Your task to perform on an android device: check data usage Image 0: 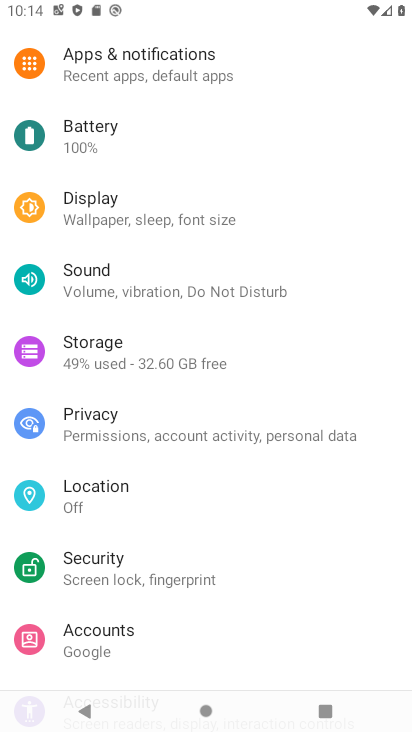
Step 0: press home button
Your task to perform on an android device: check data usage Image 1: 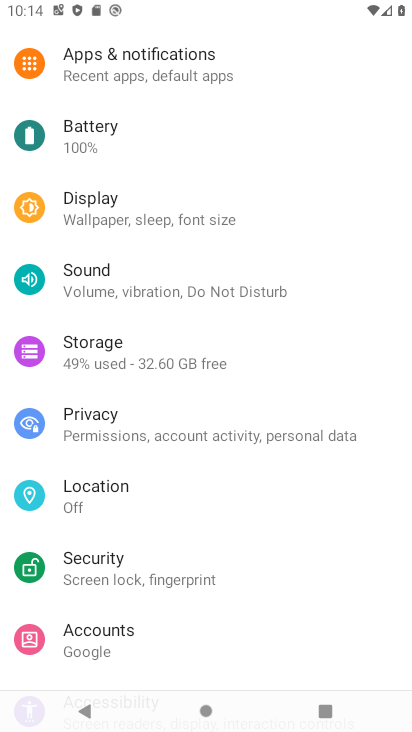
Step 1: press home button
Your task to perform on an android device: check data usage Image 2: 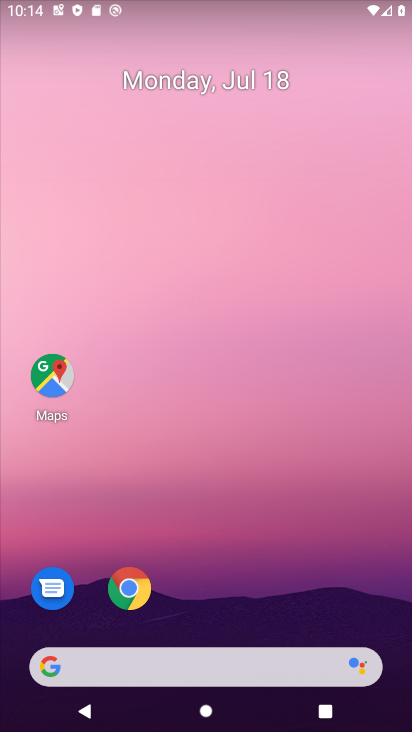
Step 2: drag from (224, 649) to (214, 140)
Your task to perform on an android device: check data usage Image 3: 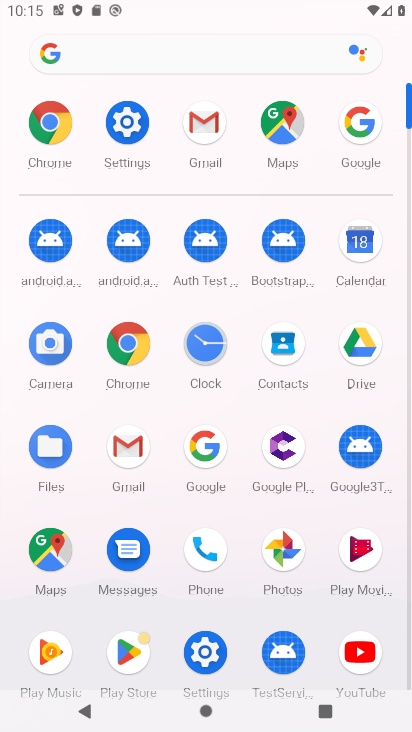
Step 3: click (137, 121)
Your task to perform on an android device: check data usage Image 4: 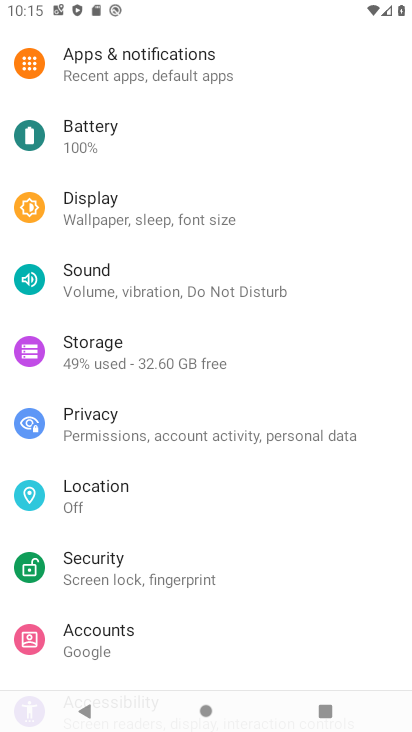
Step 4: drag from (128, 120) to (132, 525)
Your task to perform on an android device: check data usage Image 5: 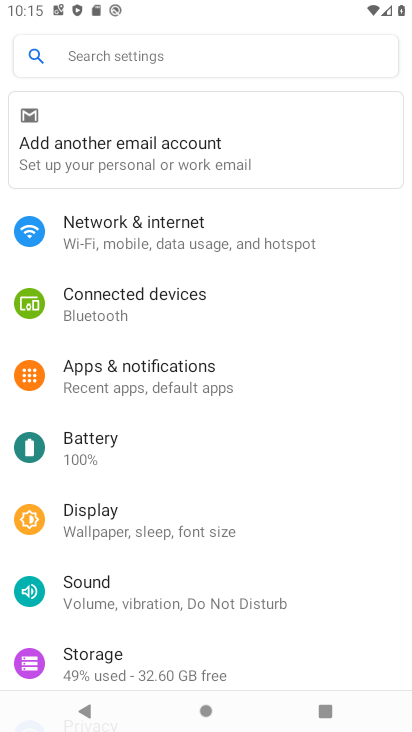
Step 5: click (85, 239)
Your task to perform on an android device: check data usage Image 6: 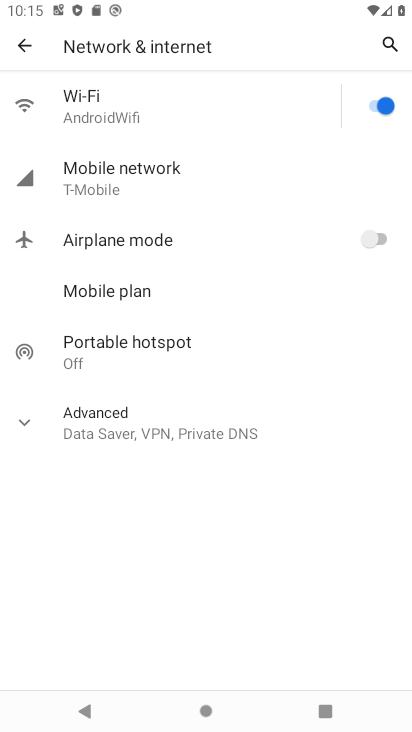
Step 6: click (98, 173)
Your task to perform on an android device: check data usage Image 7: 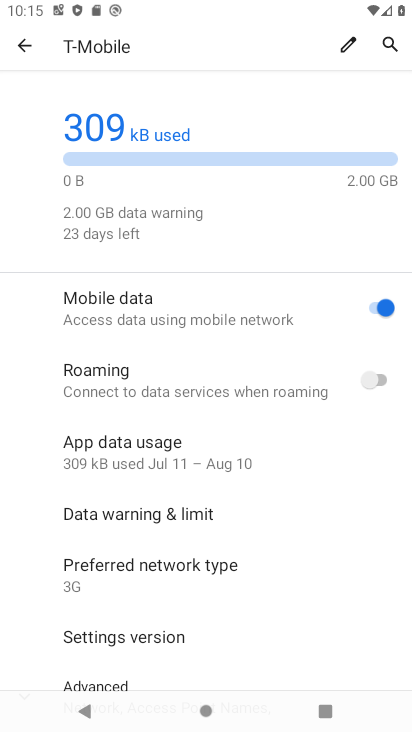
Step 7: click (157, 455)
Your task to perform on an android device: check data usage Image 8: 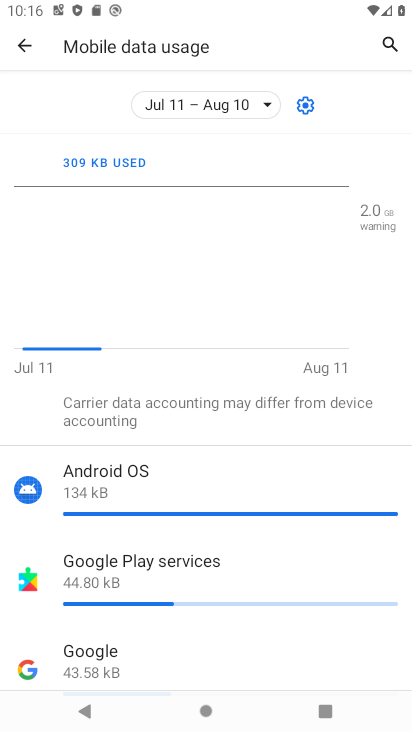
Step 8: task complete